Your task to perform on an android device: open app "DuckDuckGo Privacy Browser" (install if not already installed), go to login, and select forgot password Image 0: 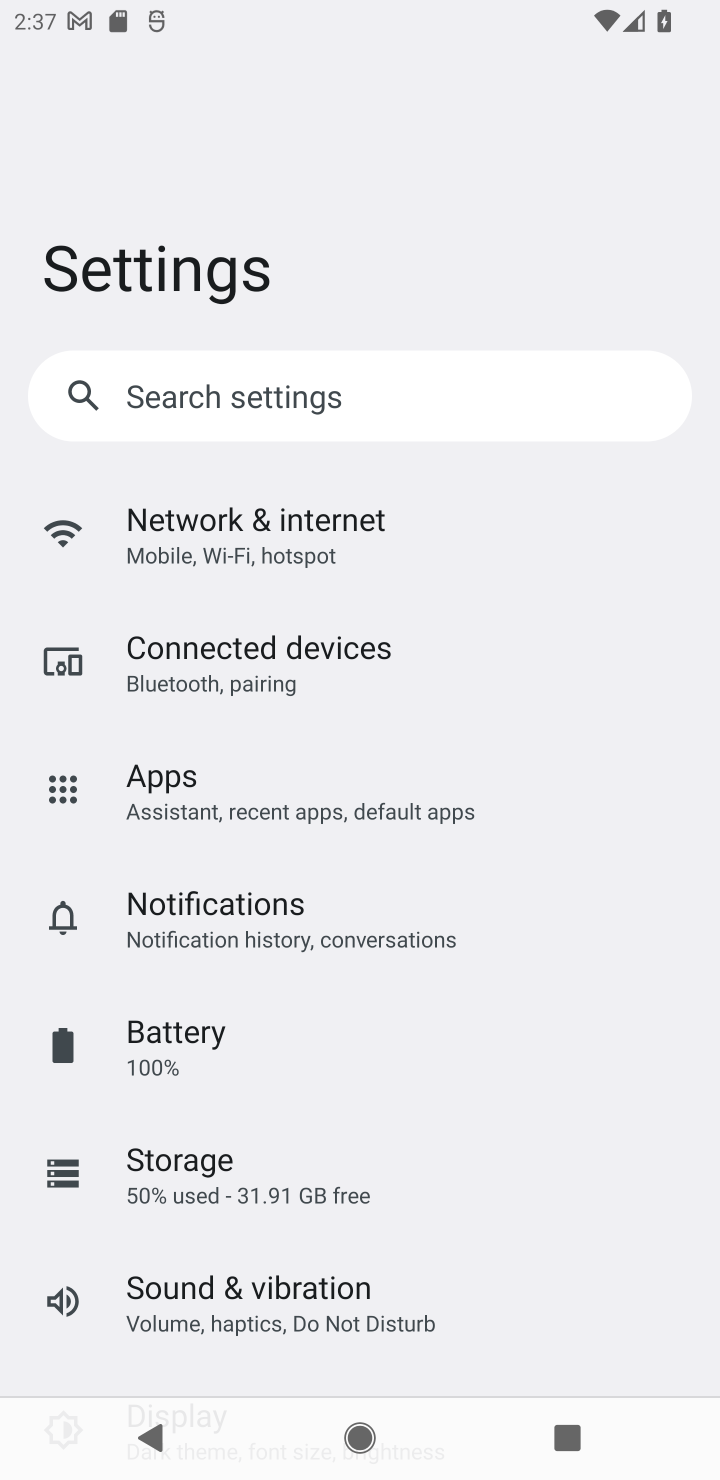
Step 0: press home button
Your task to perform on an android device: open app "DuckDuckGo Privacy Browser" (install if not already installed), go to login, and select forgot password Image 1: 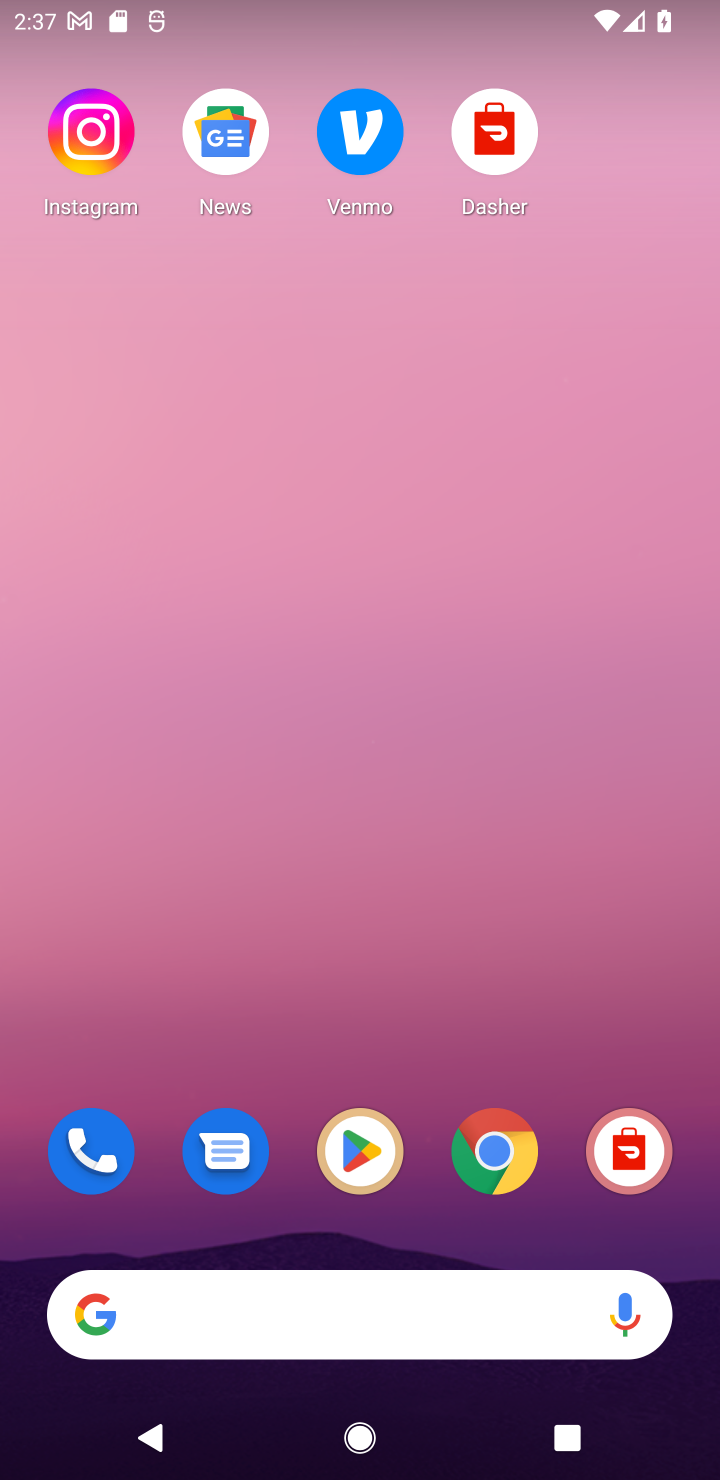
Step 1: click (360, 1136)
Your task to perform on an android device: open app "DuckDuckGo Privacy Browser" (install if not already installed), go to login, and select forgot password Image 2: 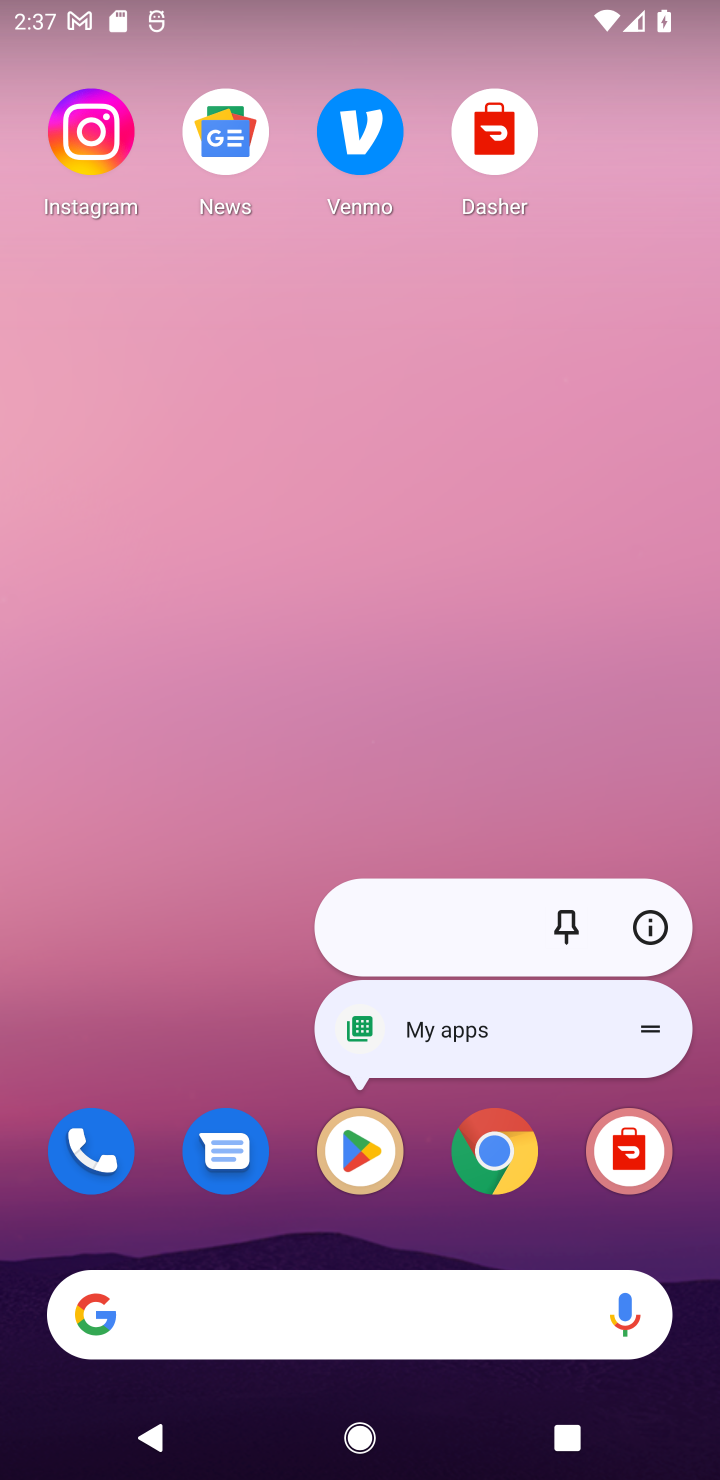
Step 2: click (360, 1136)
Your task to perform on an android device: open app "DuckDuckGo Privacy Browser" (install if not already installed), go to login, and select forgot password Image 3: 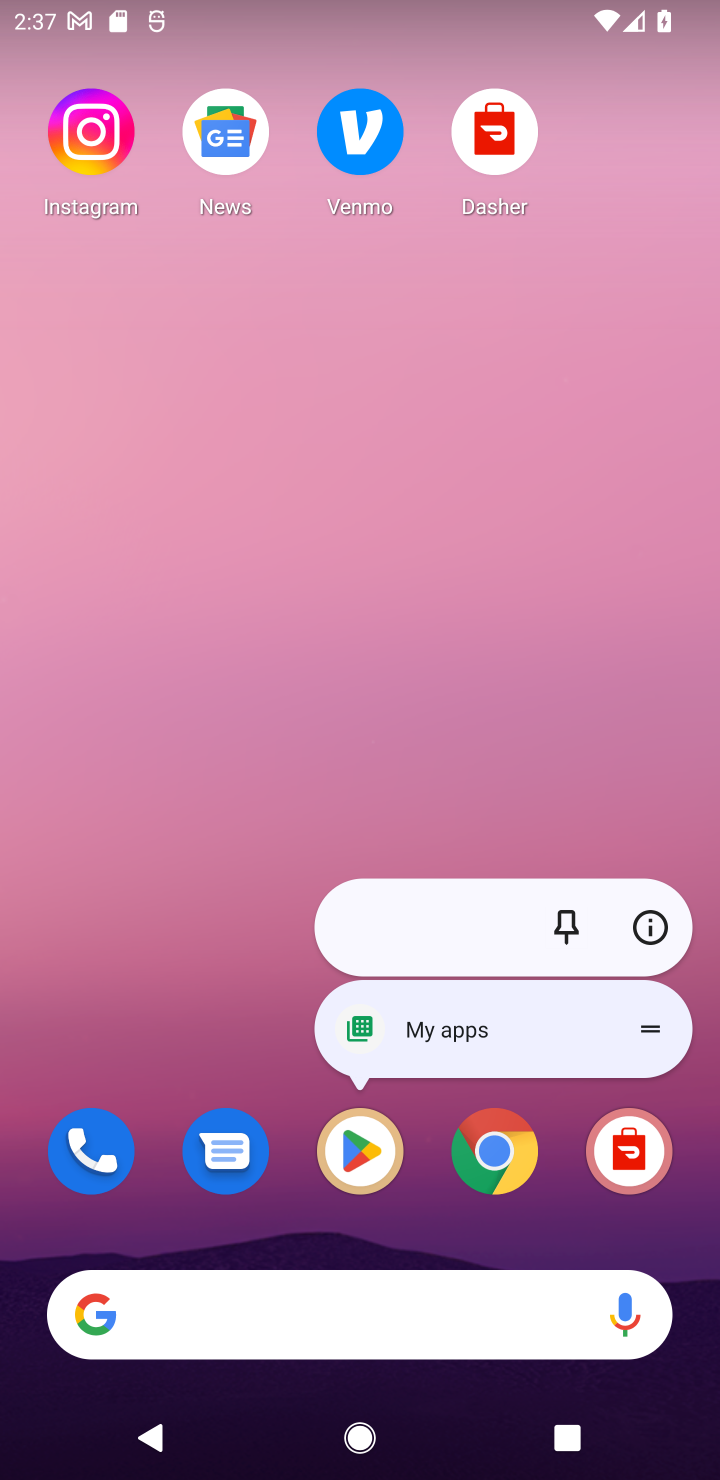
Step 3: click (360, 1148)
Your task to perform on an android device: open app "DuckDuckGo Privacy Browser" (install if not already installed), go to login, and select forgot password Image 4: 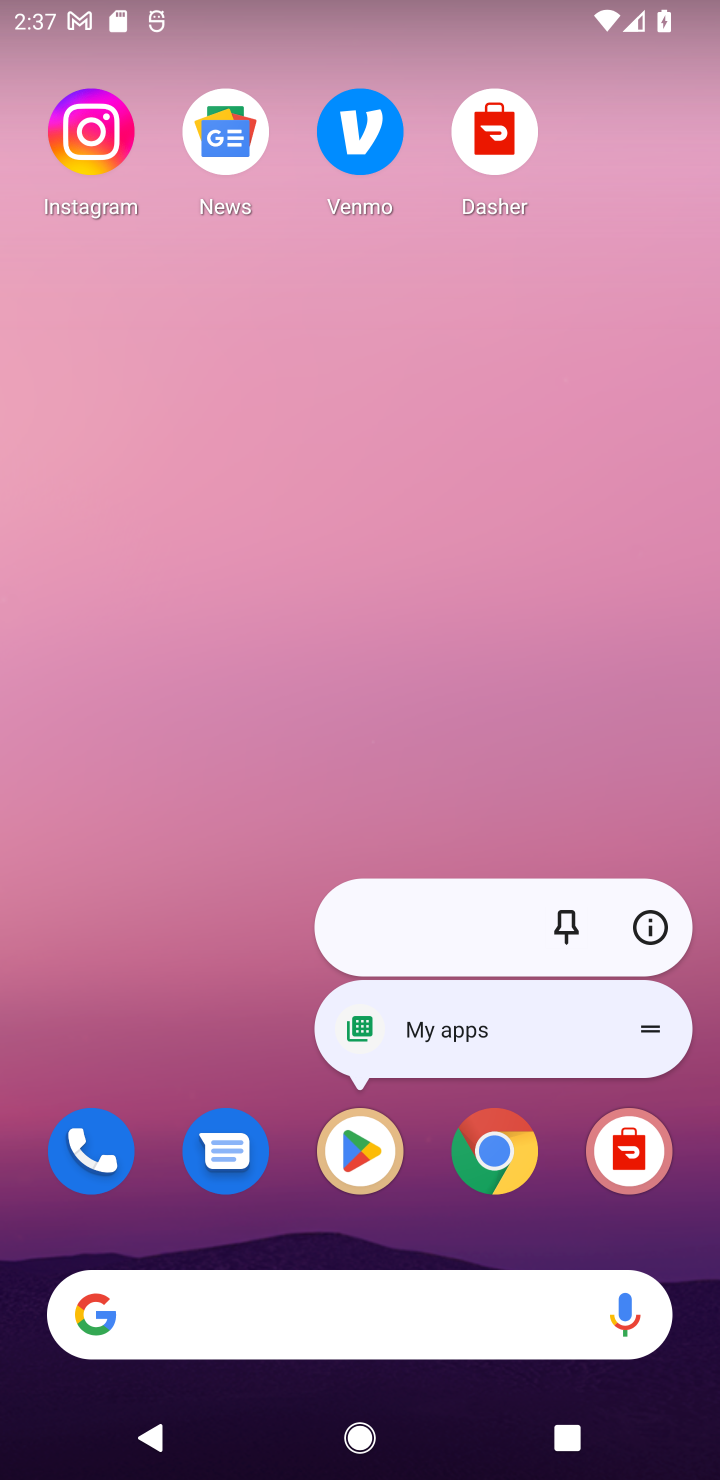
Step 4: click (365, 1156)
Your task to perform on an android device: open app "DuckDuckGo Privacy Browser" (install if not already installed), go to login, and select forgot password Image 5: 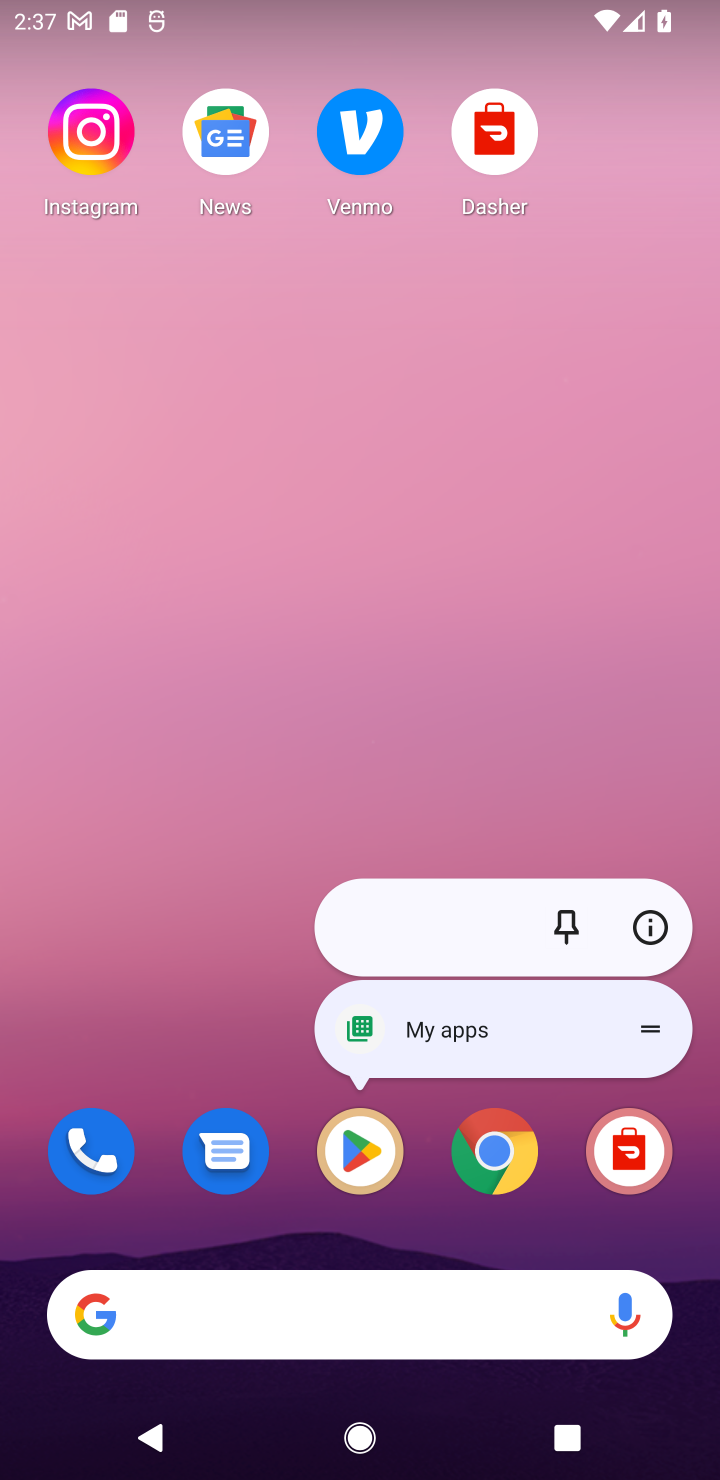
Step 5: click (356, 1158)
Your task to perform on an android device: open app "DuckDuckGo Privacy Browser" (install if not already installed), go to login, and select forgot password Image 6: 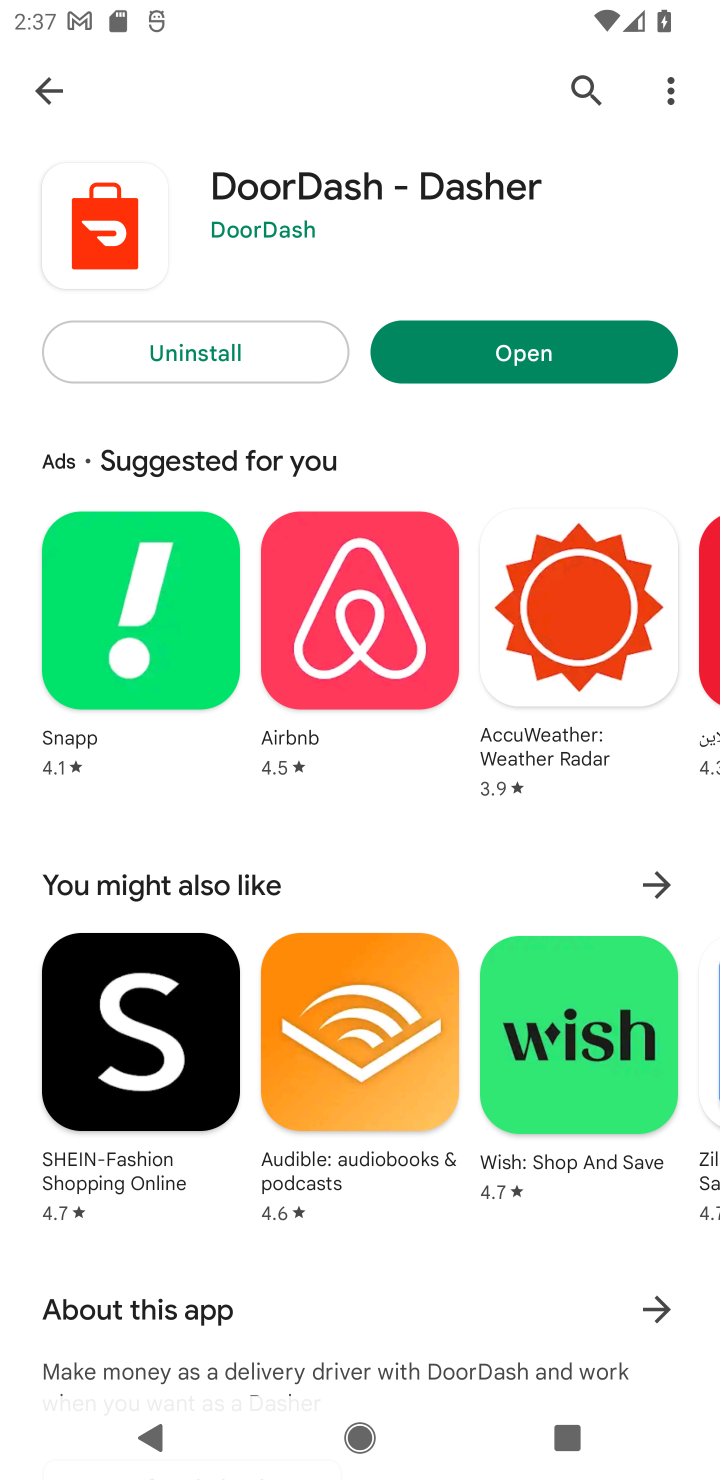
Step 6: click (573, 86)
Your task to perform on an android device: open app "DuckDuckGo Privacy Browser" (install if not already installed), go to login, and select forgot password Image 7: 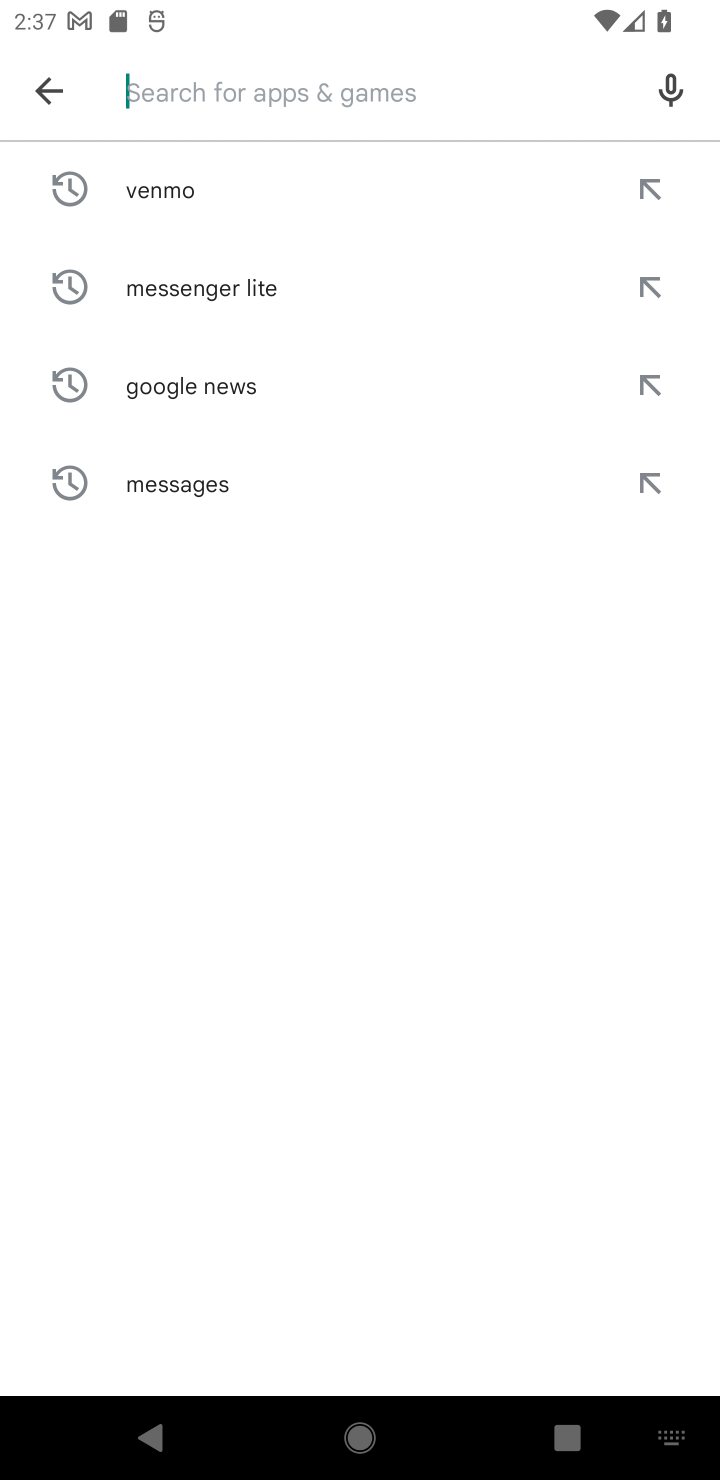
Step 7: type "DuckDuckGo Privacy Browser"
Your task to perform on an android device: open app "DuckDuckGo Privacy Browser" (install if not already installed), go to login, and select forgot password Image 8: 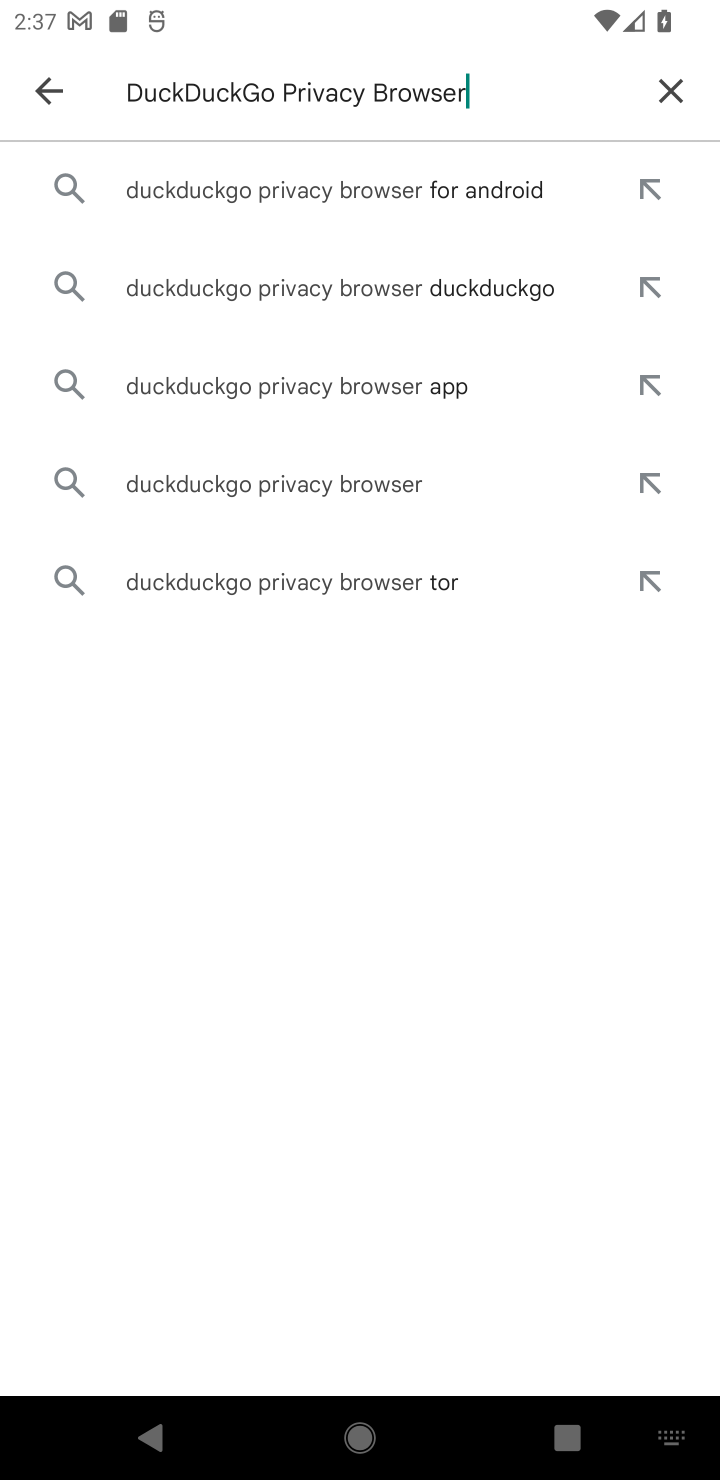
Step 8: click (238, 192)
Your task to perform on an android device: open app "DuckDuckGo Privacy Browser" (install if not already installed), go to login, and select forgot password Image 9: 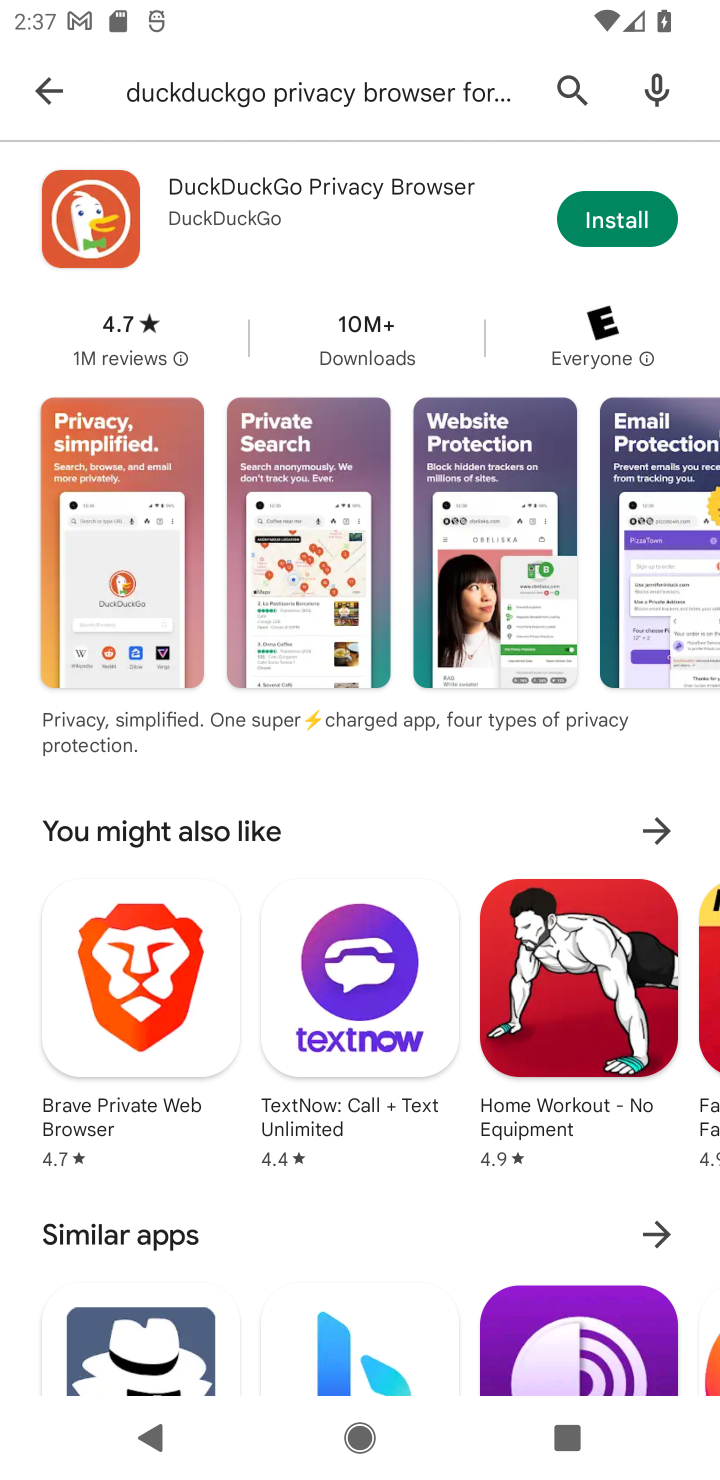
Step 9: click (618, 219)
Your task to perform on an android device: open app "DuckDuckGo Privacy Browser" (install if not already installed), go to login, and select forgot password Image 10: 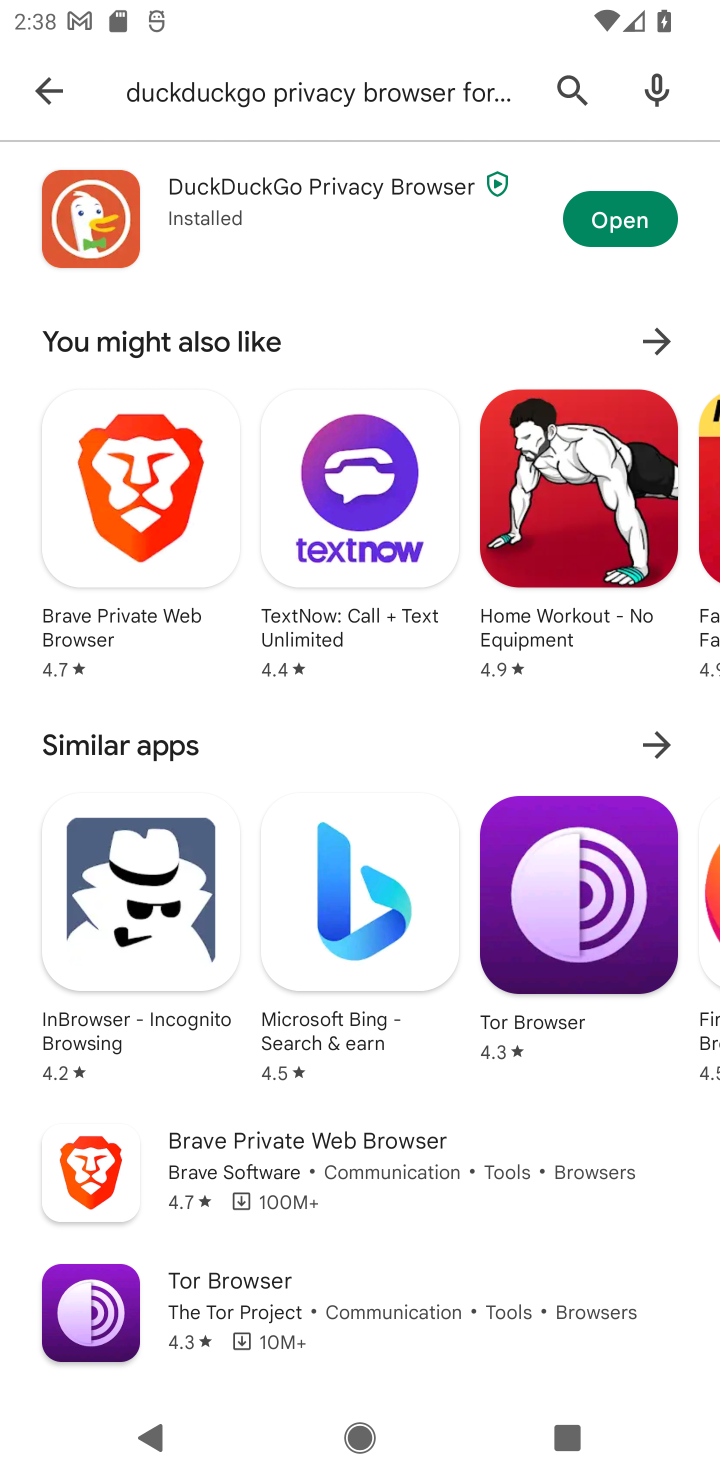
Step 10: click (615, 219)
Your task to perform on an android device: open app "DuckDuckGo Privacy Browser" (install if not already installed), go to login, and select forgot password Image 11: 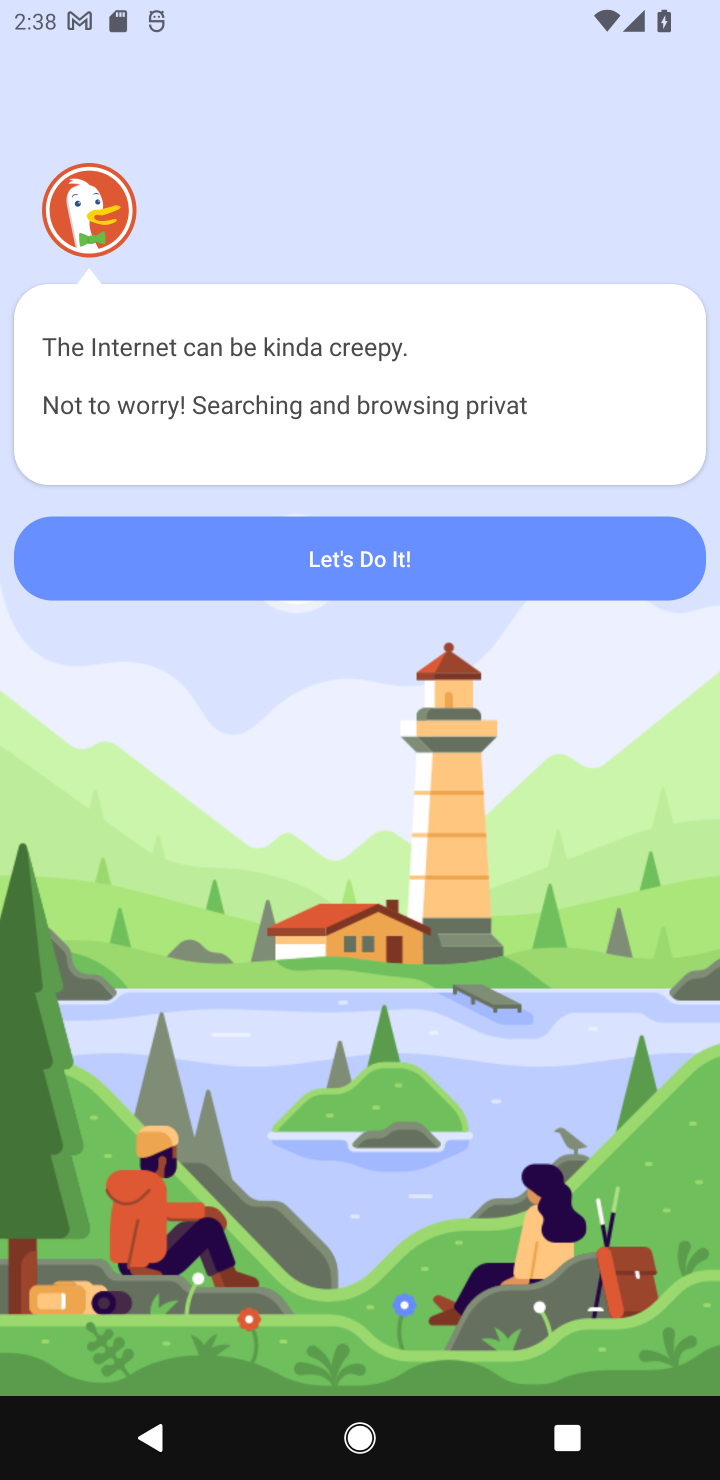
Step 11: click (441, 567)
Your task to perform on an android device: open app "DuckDuckGo Privacy Browser" (install if not already installed), go to login, and select forgot password Image 12: 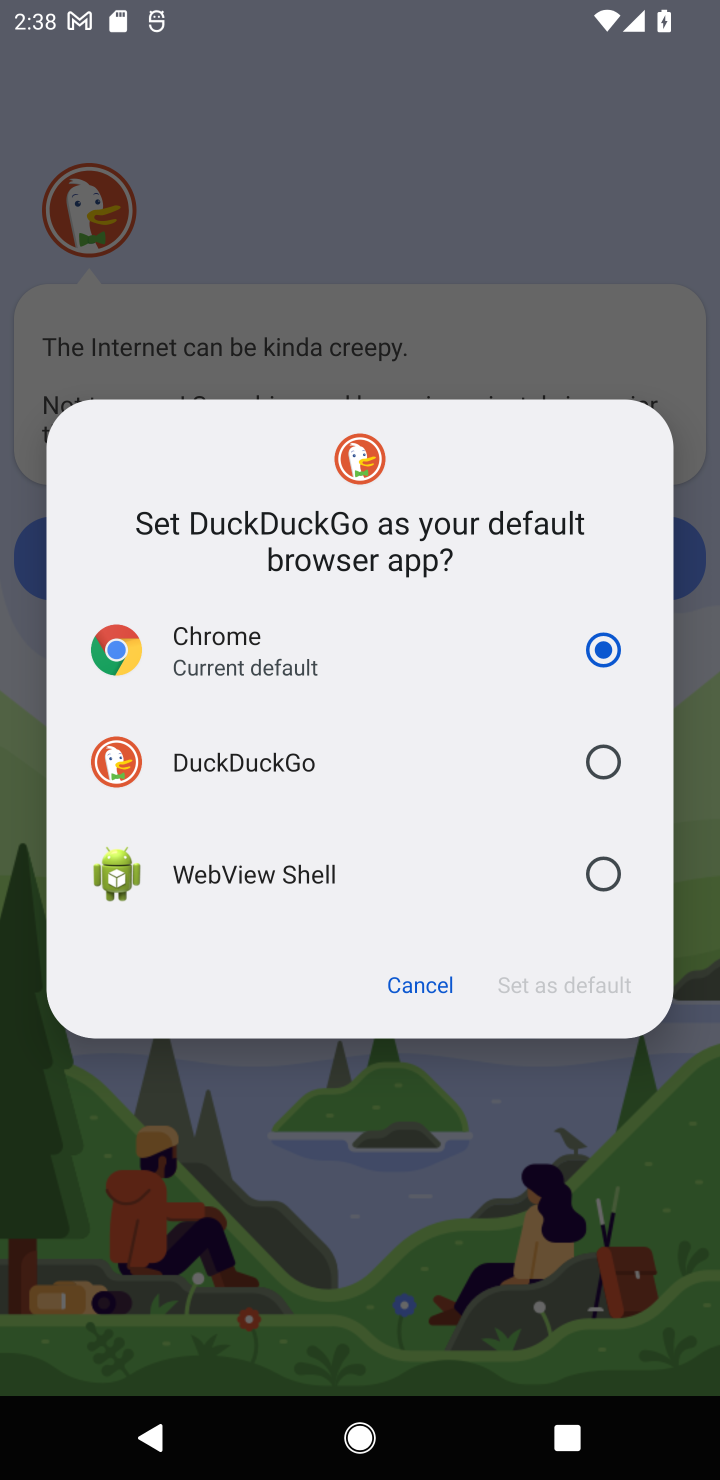
Step 12: task complete